Your task to perform on an android device: Check the news Image 0: 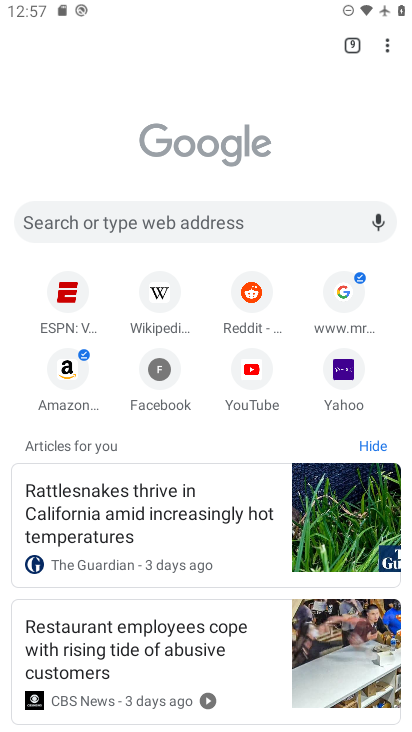
Step 0: press back button
Your task to perform on an android device: Check the news Image 1: 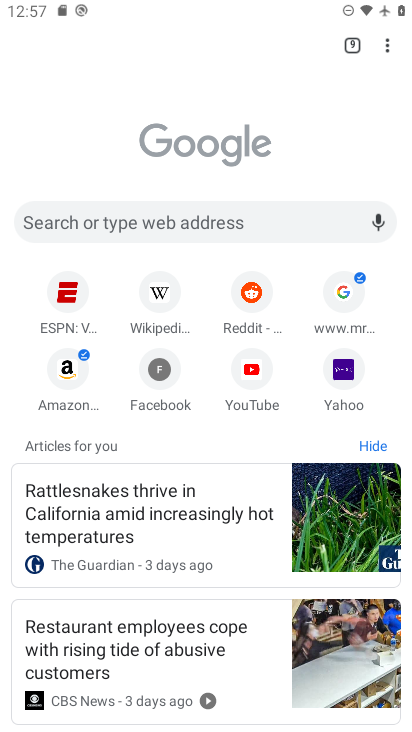
Step 1: press back button
Your task to perform on an android device: Check the news Image 2: 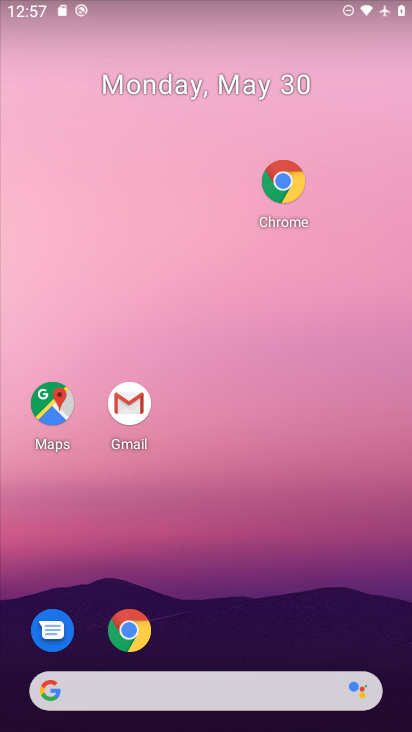
Step 2: drag from (22, 357) to (406, 363)
Your task to perform on an android device: Check the news Image 3: 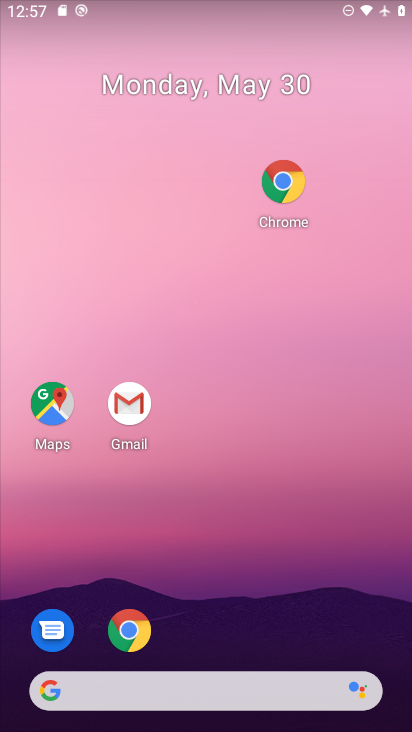
Step 3: click (380, 268)
Your task to perform on an android device: Check the news Image 4: 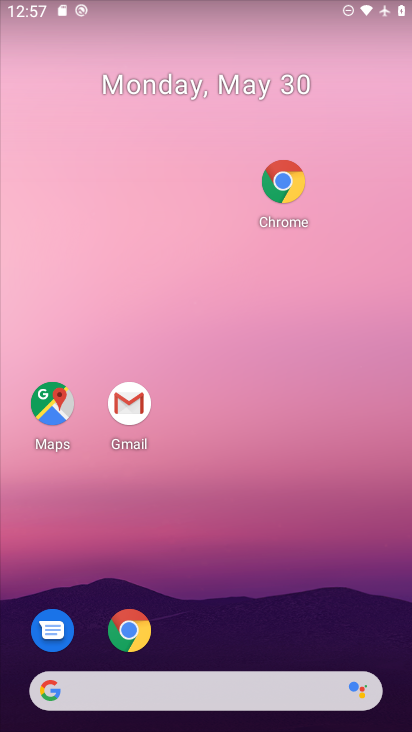
Step 4: task complete